Your task to perform on an android device: all mails in gmail Image 0: 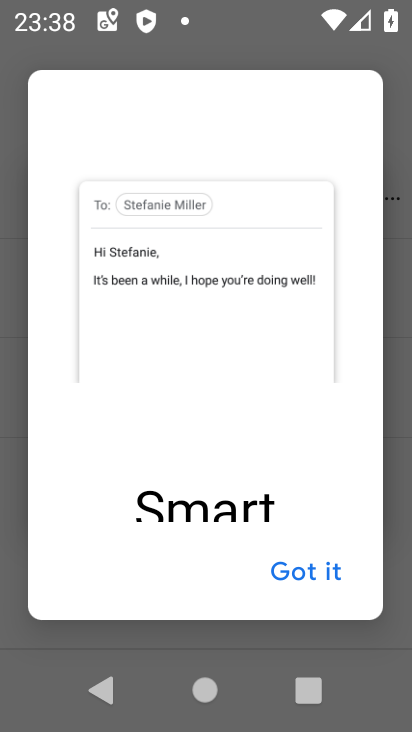
Step 0: press home button
Your task to perform on an android device: all mails in gmail Image 1: 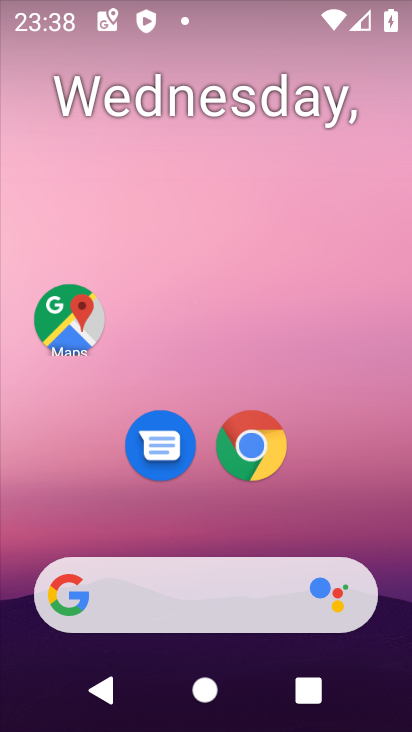
Step 1: click (239, 435)
Your task to perform on an android device: all mails in gmail Image 2: 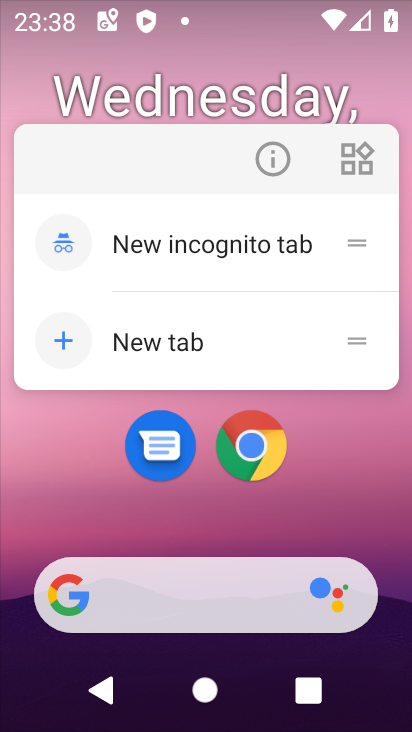
Step 2: press back button
Your task to perform on an android device: all mails in gmail Image 3: 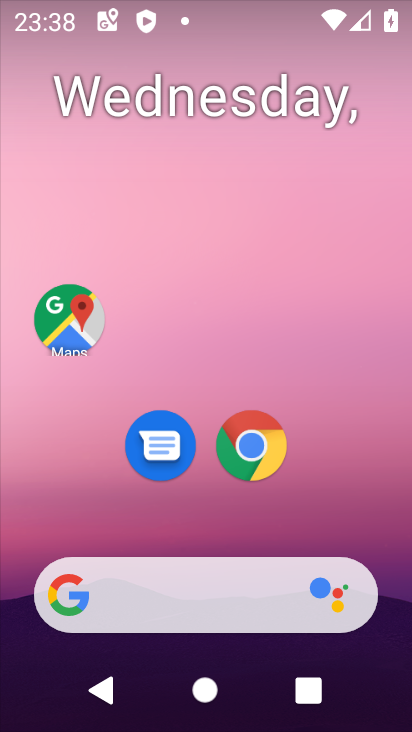
Step 3: drag from (312, 483) to (331, 162)
Your task to perform on an android device: all mails in gmail Image 4: 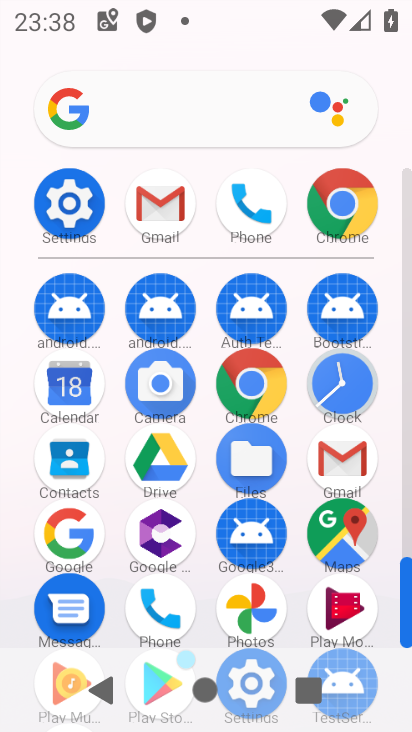
Step 4: click (165, 201)
Your task to perform on an android device: all mails in gmail Image 5: 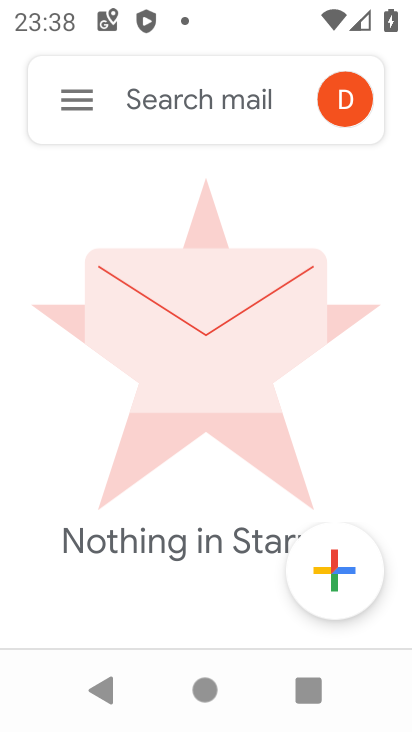
Step 5: click (81, 97)
Your task to perform on an android device: all mails in gmail Image 6: 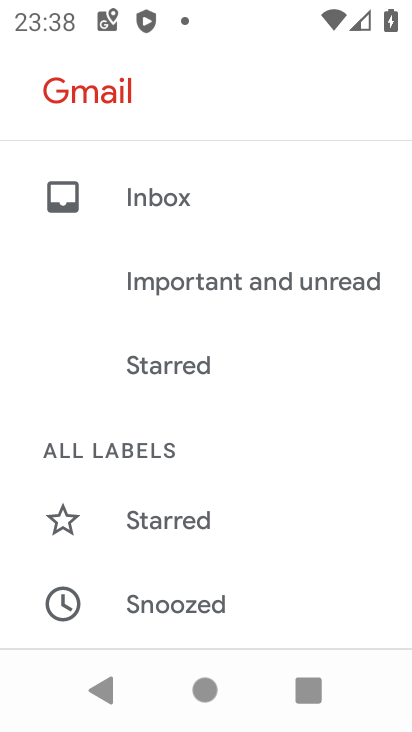
Step 6: drag from (229, 535) to (267, 244)
Your task to perform on an android device: all mails in gmail Image 7: 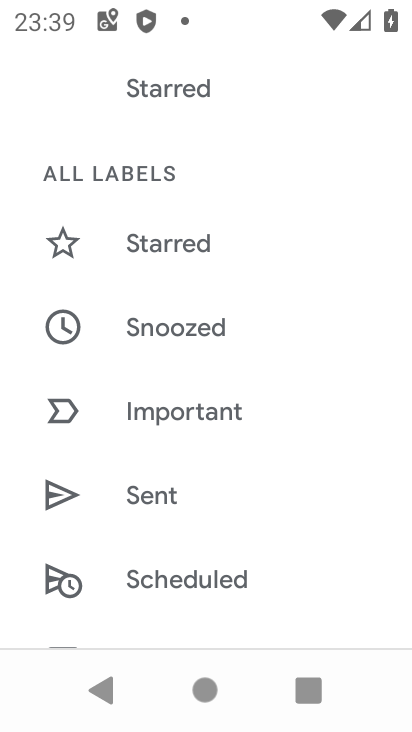
Step 7: drag from (205, 519) to (257, 228)
Your task to perform on an android device: all mails in gmail Image 8: 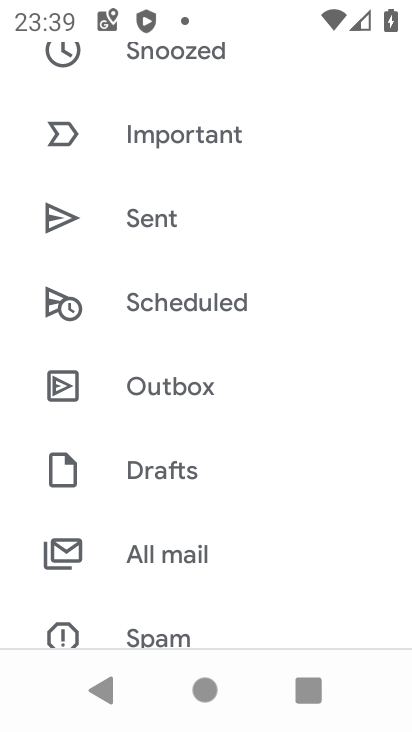
Step 8: click (192, 542)
Your task to perform on an android device: all mails in gmail Image 9: 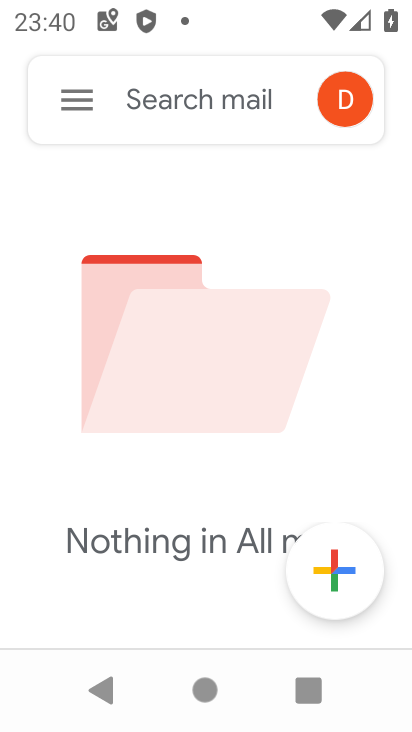
Step 9: task complete